Your task to perform on an android device: Clear all items from cart on walmart.com. Add razer naga to the cart on walmart.com, then select checkout. Image 0: 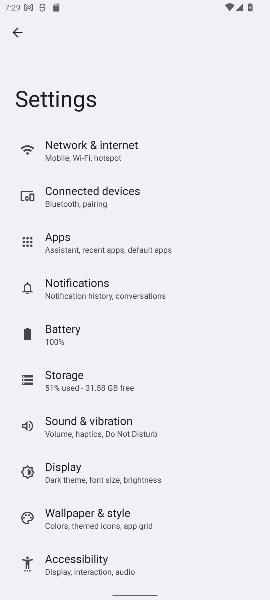
Step 0: press home button
Your task to perform on an android device: Clear all items from cart on walmart.com. Add razer naga to the cart on walmart.com, then select checkout. Image 1: 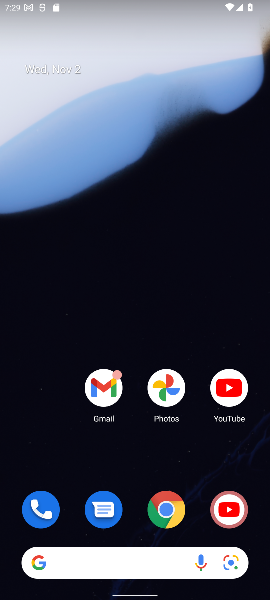
Step 1: click (121, 561)
Your task to perform on an android device: Clear all items from cart on walmart.com. Add razer naga to the cart on walmart.com, then select checkout. Image 2: 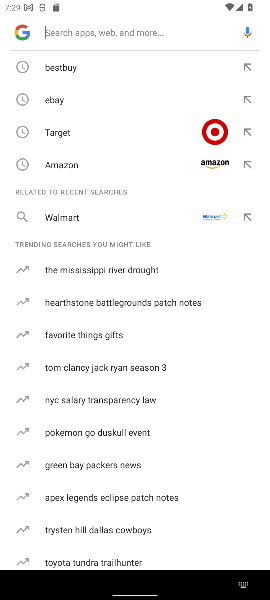
Step 2: type "walmart"
Your task to perform on an android device: Clear all items from cart on walmart.com. Add razer naga to the cart on walmart.com, then select checkout. Image 3: 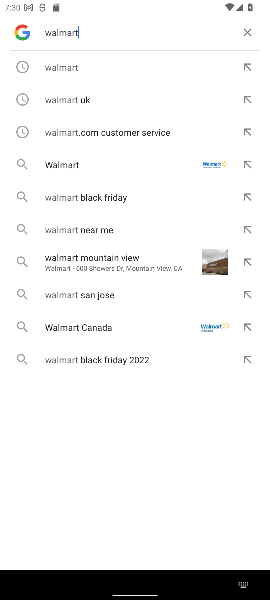
Step 3: click (66, 68)
Your task to perform on an android device: Clear all items from cart on walmart.com. Add razer naga to the cart on walmart.com, then select checkout. Image 4: 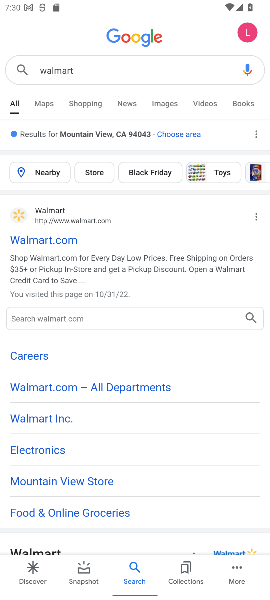
Step 4: click (44, 242)
Your task to perform on an android device: Clear all items from cart on walmart.com. Add razer naga to the cart on walmart.com, then select checkout. Image 5: 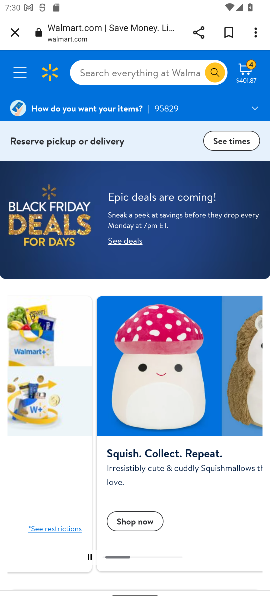
Step 5: click (246, 69)
Your task to perform on an android device: Clear all items from cart on walmart.com. Add razer naga to the cart on walmart.com, then select checkout. Image 6: 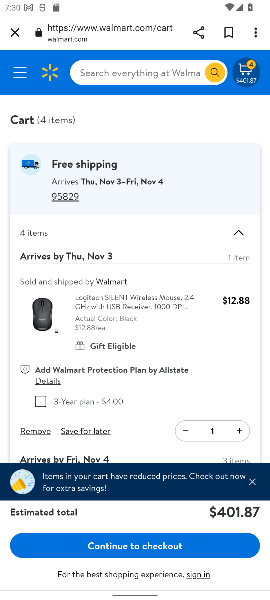
Step 6: click (31, 431)
Your task to perform on an android device: Clear all items from cart on walmart.com. Add razer naga to the cart on walmart.com, then select checkout. Image 7: 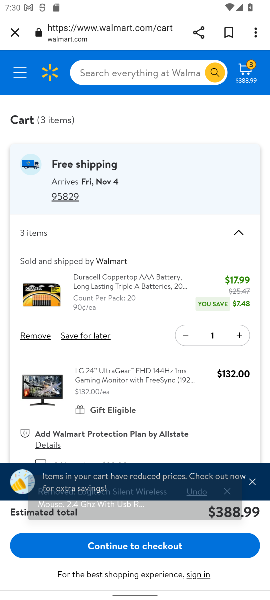
Step 7: click (28, 337)
Your task to perform on an android device: Clear all items from cart on walmart.com. Add razer naga to the cart on walmart.com, then select checkout. Image 8: 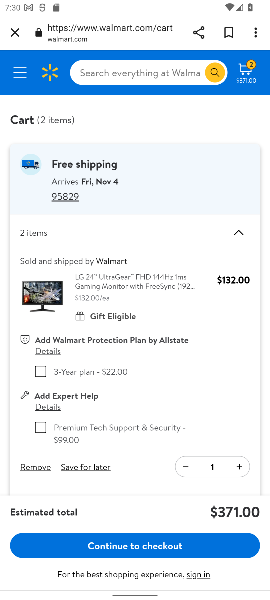
Step 8: click (34, 466)
Your task to perform on an android device: Clear all items from cart on walmart.com. Add razer naga to the cart on walmart.com, then select checkout. Image 9: 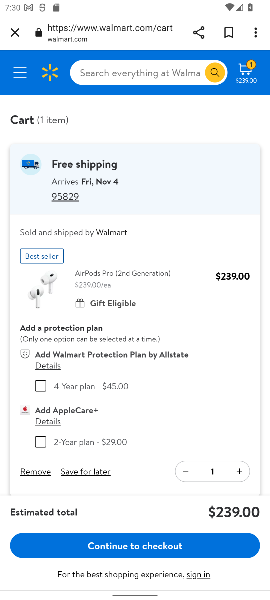
Step 9: click (29, 472)
Your task to perform on an android device: Clear all items from cart on walmart.com. Add razer naga to the cart on walmart.com, then select checkout. Image 10: 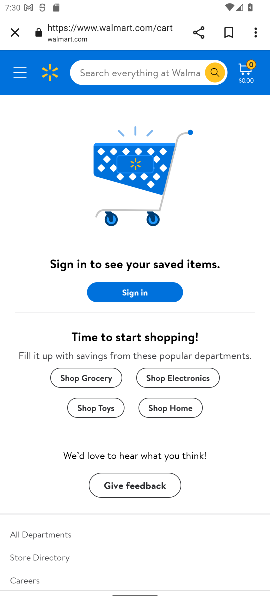
Step 10: click (248, 71)
Your task to perform on an android device: Clear all items from cart on walmart.com. Add razer naga to the cart on walmart.com, then select checkout. Image 11: 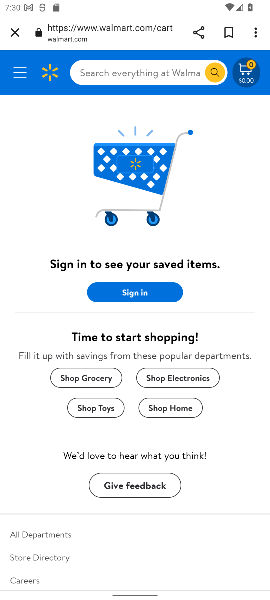
Step 11: click (109, 72)
Your task to perform on an android device: Clear all items from cart on walmart.com. Add razer naga to the cart on walmart.com, then select checkout. Image 12: 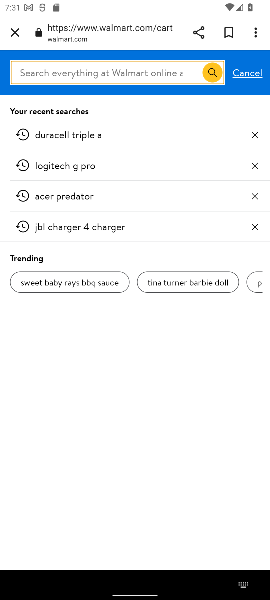
Step 12: type "razer naga"
Your task to perform on an android device: Clear all items from cart on walmart.com. Add razer naga to the cart on walmart.com, then select checkout. Image 13: 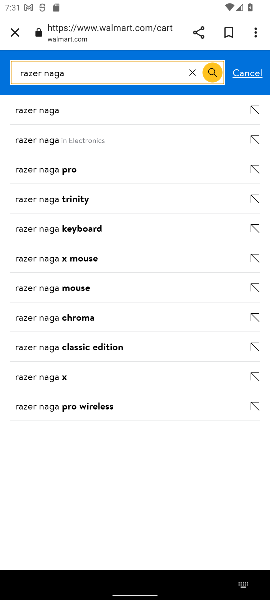
Step 13: click (216, 75)
Your task to perform on an android device: Clear all items from cart on walmart.com. Add razer naga to the cart on walmart.com, then select checkout. Image 14: 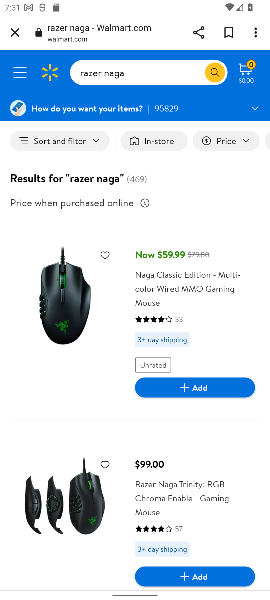
Step 14: click (198, 387)
Your task to perform on an android device: Clear all items from cart on walmart.com. Add razer naga to the cart on walmart.com, then select checkout. Image 15: 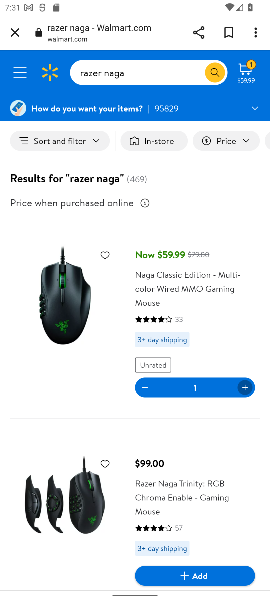
Step 15: click (248, 66)
Your task to perform on an android device: Clear all items from cart on walmart.com. Add razer naga to the cart on walmart.com, then select checkout. Image 16: 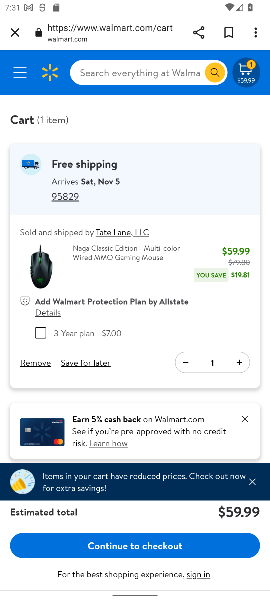
Step 16: click (138, 548)
Your task to perform on an android device: Clear all items from cart on walmart.com. Add razer naga to the cart on walmart.com, then select checkout. Image 17: 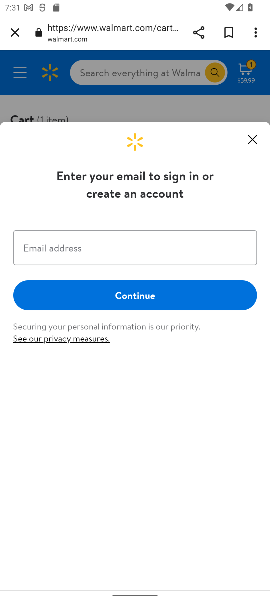
Step 17: task complete